Your task to perform on an android device: What is the news today? Image 0: 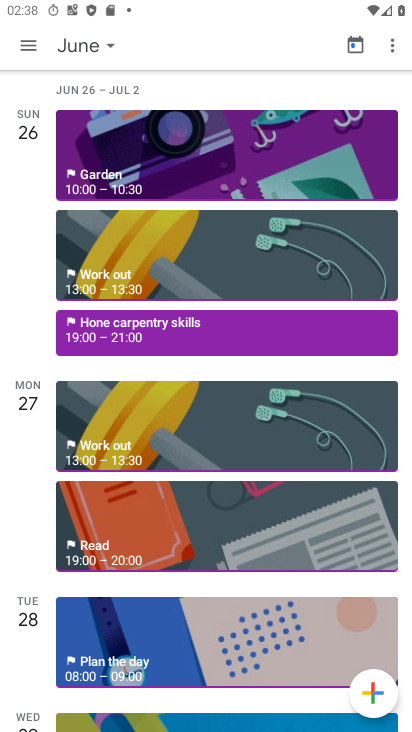
Step 0: press home button
Your task to perform on an android device: What is the news today? Image 1: 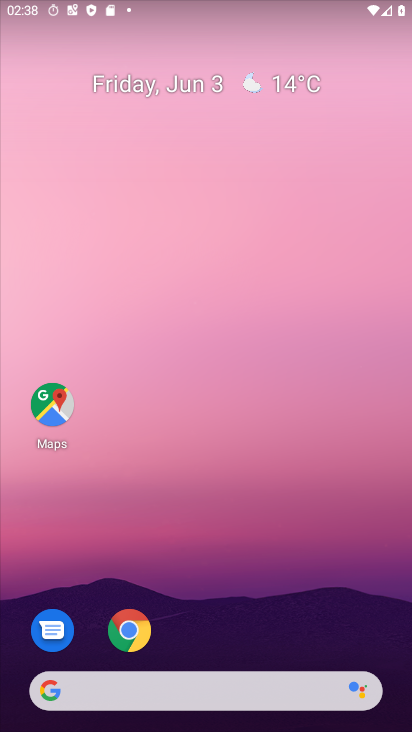
Step 1: task complete